Your task to perform on an android device: stop showing notifications on the lock screen Image 0: 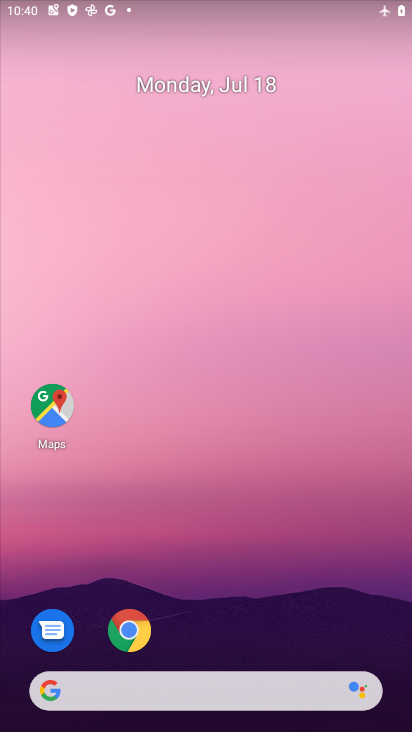
Step 0: drag from (367, 625) to (135, 19)
Your task to perform on an android device: stop showing notifications on the lock screen Image 1: 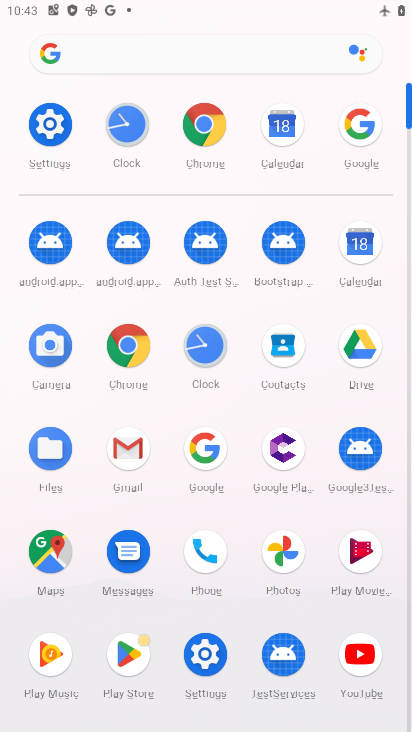
Step 1: click (60, 136)
Your task to perform on an android device: stop showing notifications on the lock screen Image 2: 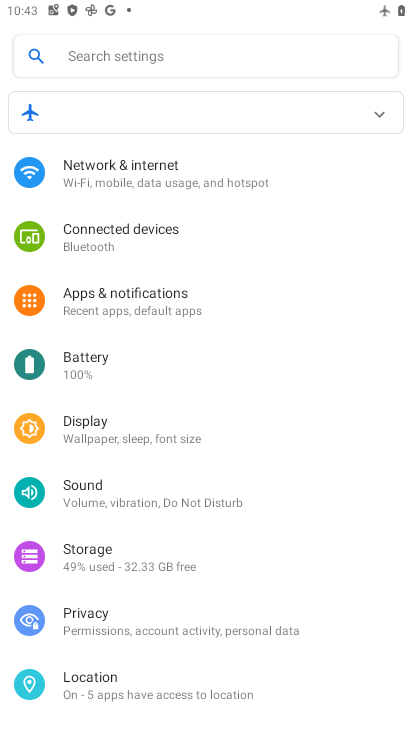
Step 2: click (192, 309)
Your task to perform on an android device: stop showing notifications on the lock screen Image 3: 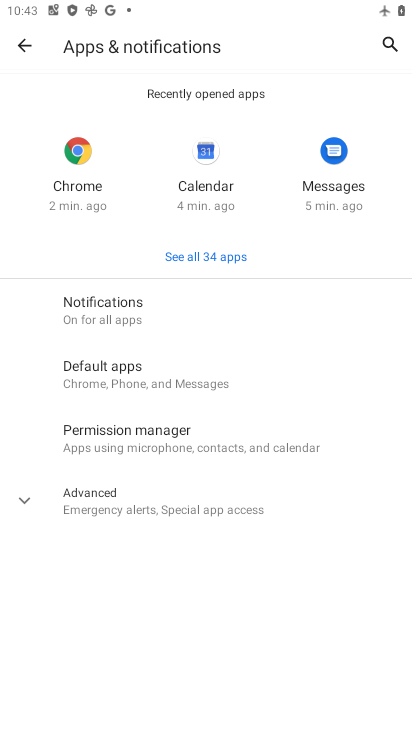
Step 3: click (118, 323)
Your task to perform on an android device: stop showing notifications on the lock screen Image 4: 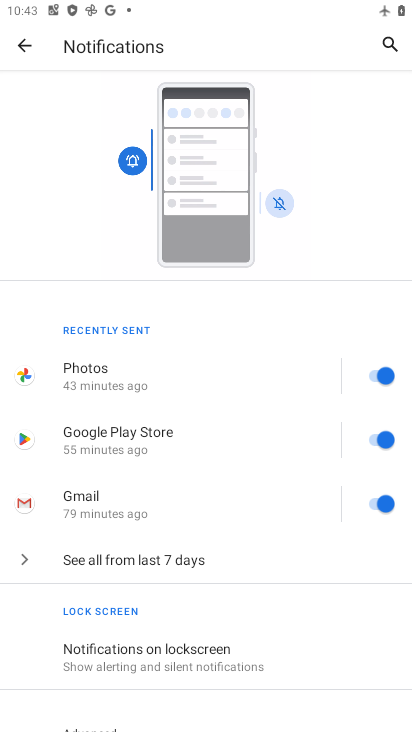
Step 4: click (230, 664)
Your task to perform on an android device: stop showing notifications on the lock screen Image 5: 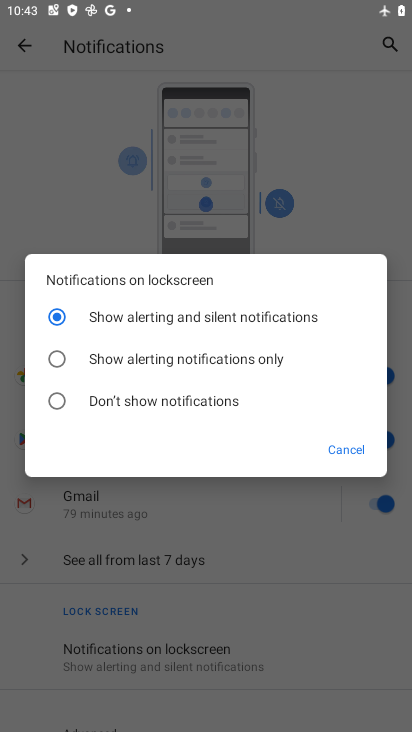
Step 5: click (130, 410)
Your task to perform on an android device: stop showing notifications on the lock screen Image 6: 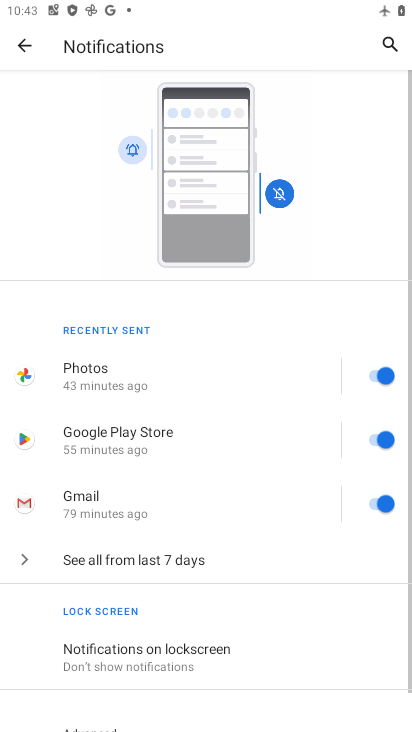
Step 6: task complete